Your task to perform on an android device: Add dell xps to the cart on walmart.com, then select checkout. Image 0: 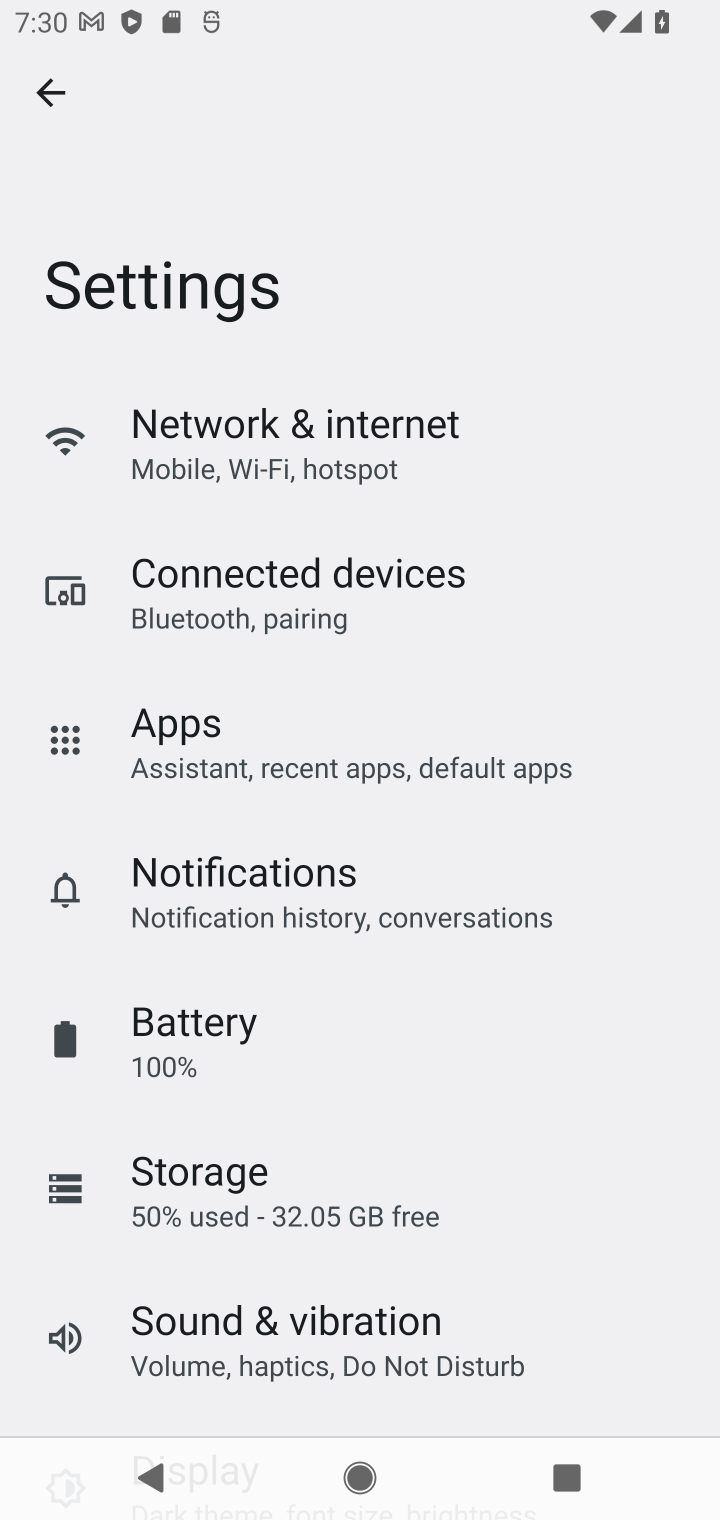
Step 0: press home button
Your task to perform on an android device: Add dell xps to the cart on walmart.com, then select checkout. Image 1: 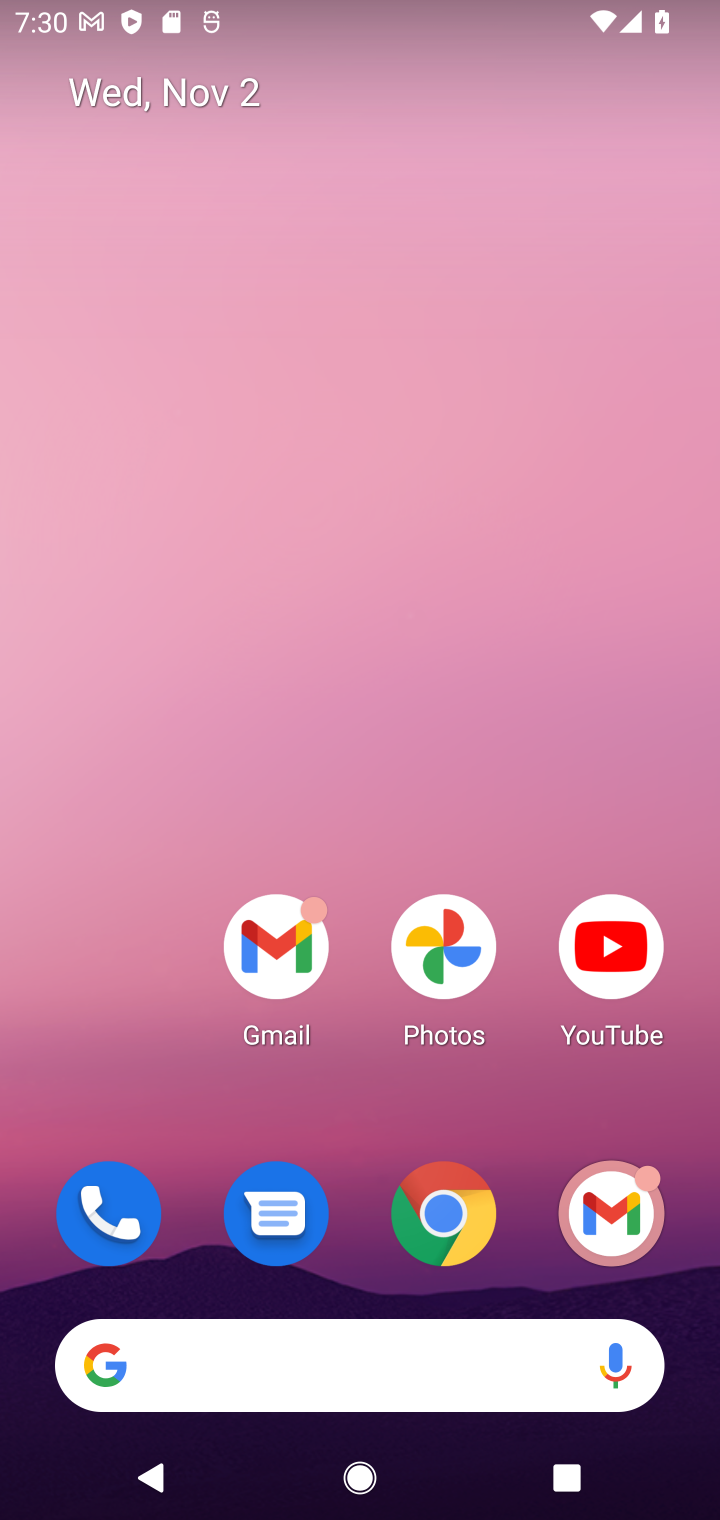
Step 1: click (440, 1215)
Your task to perform on an android device: Add dell xps to the cart on walmart.com, then select checkout. Image 2: 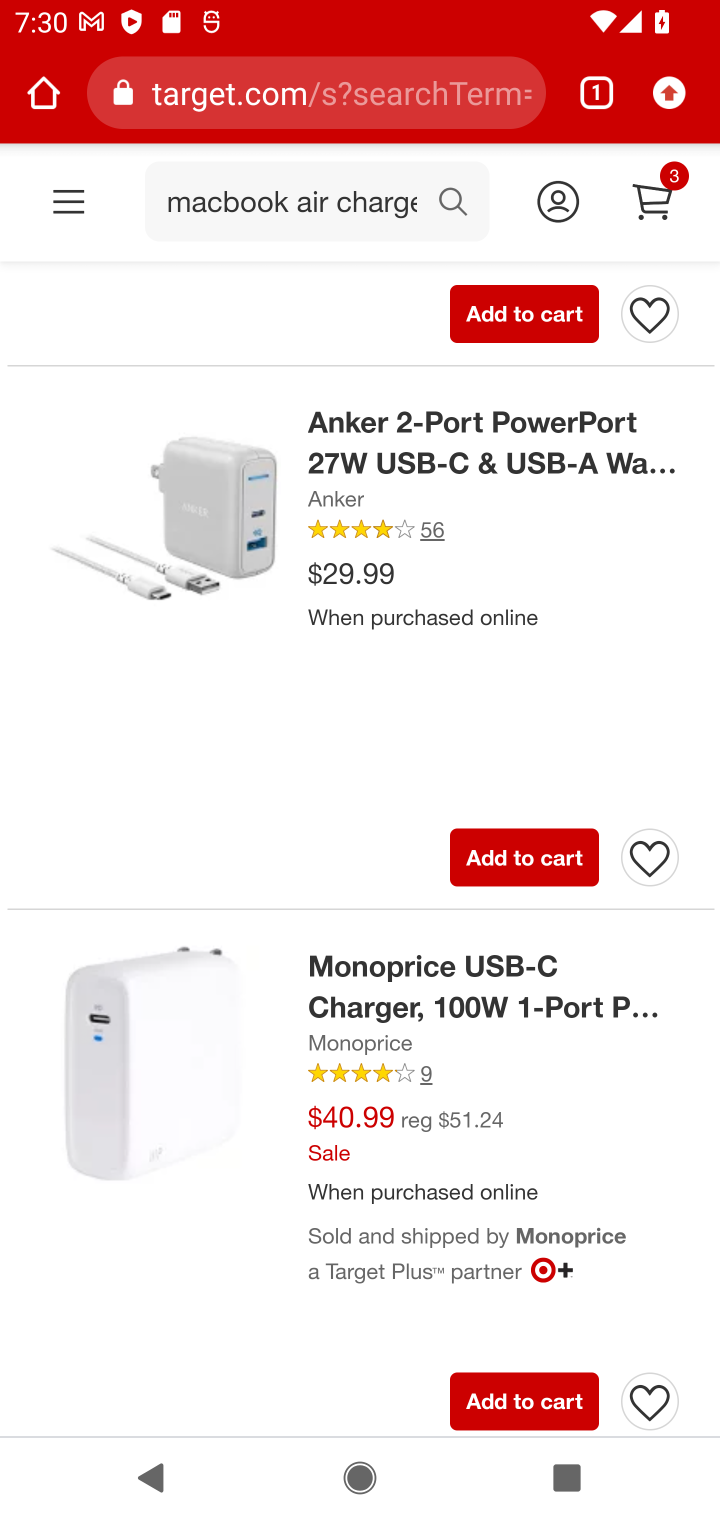
Step 2: click (416, 65)
Your task to perform on an android device: Add dell xps to the cart on walmart.com, then select checkout. Image 3: 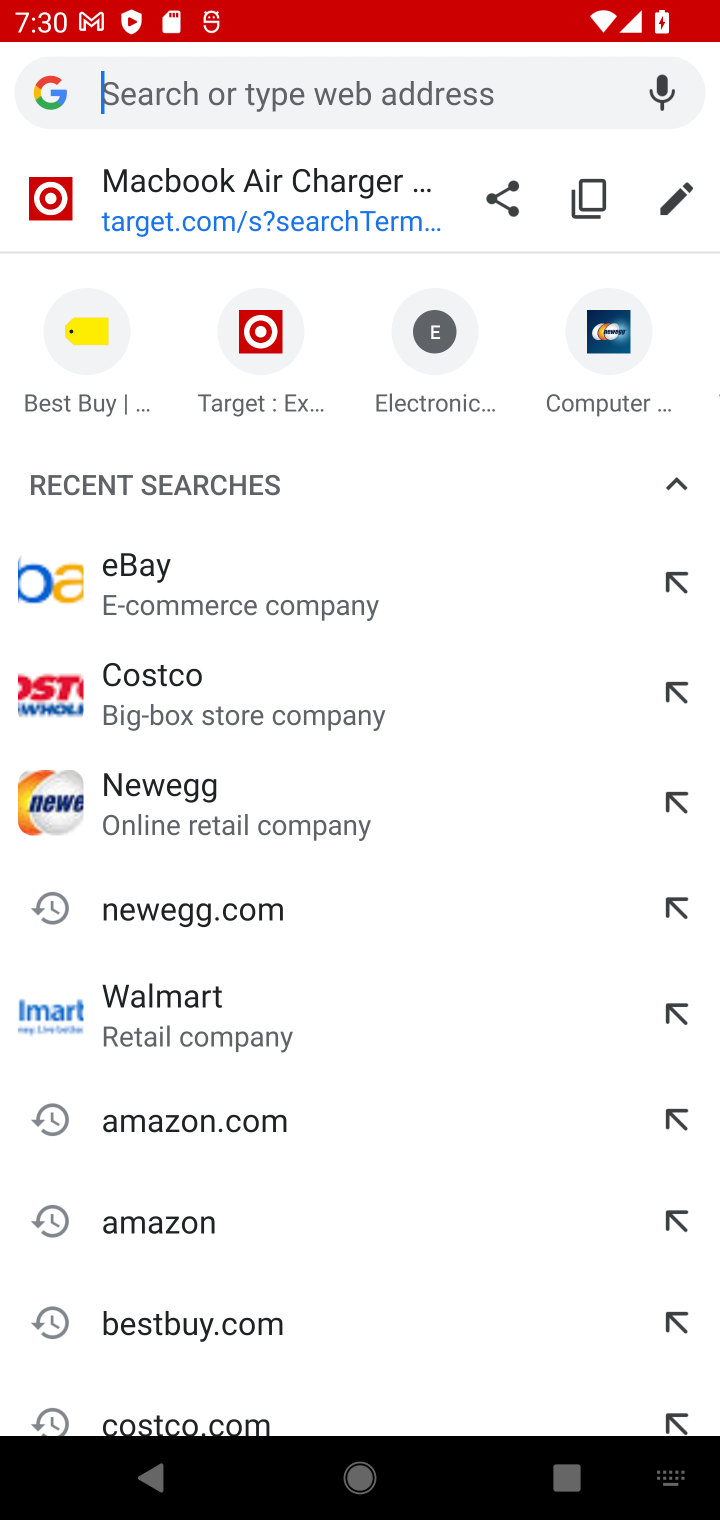
Step 3: click (170, 1009)
Your task to perform on an android device: Add dell xps to the cart on walmart.com, then select checkout. Image 4: 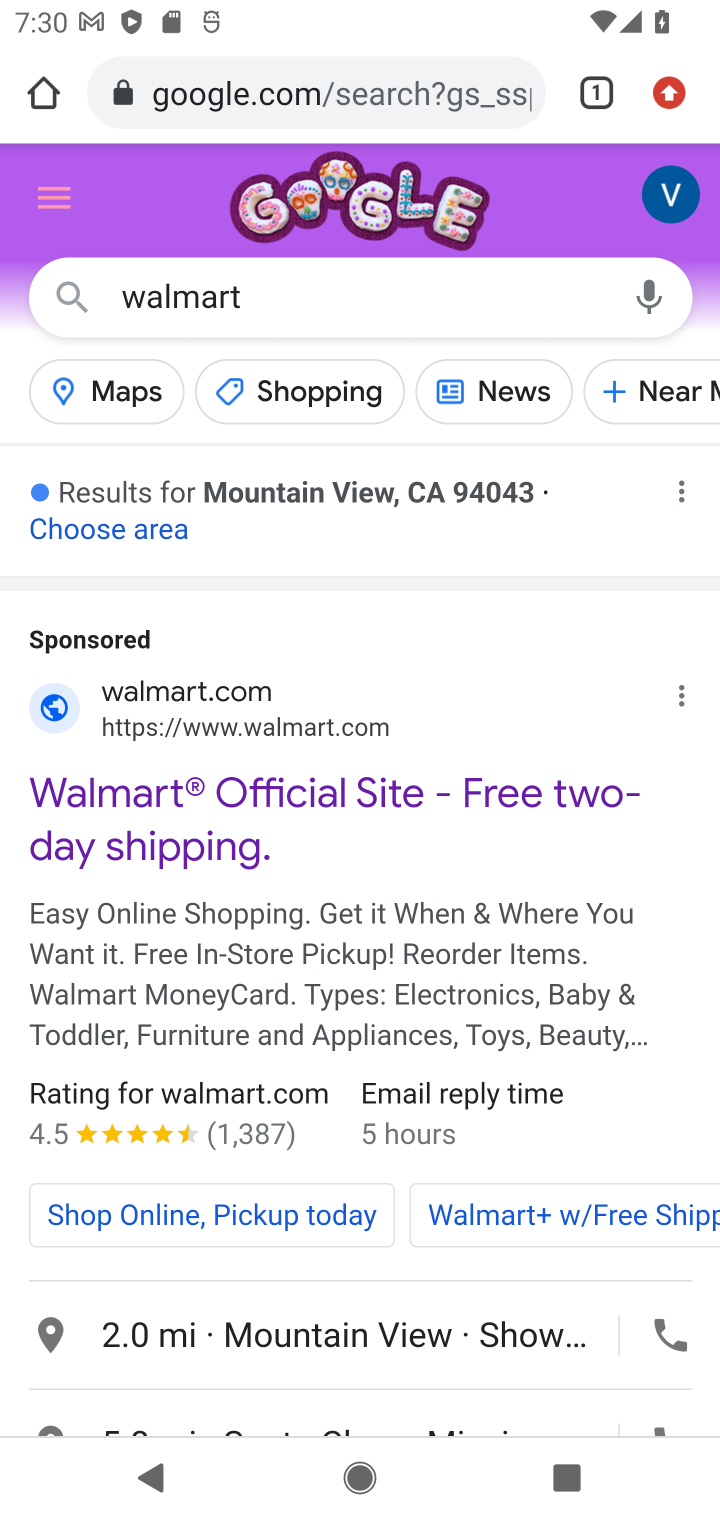
Step 4: click (108, 787)
Your task to perform on an android device: Add dell xps to the cart on walmart.com, then select checkout. Image 5: 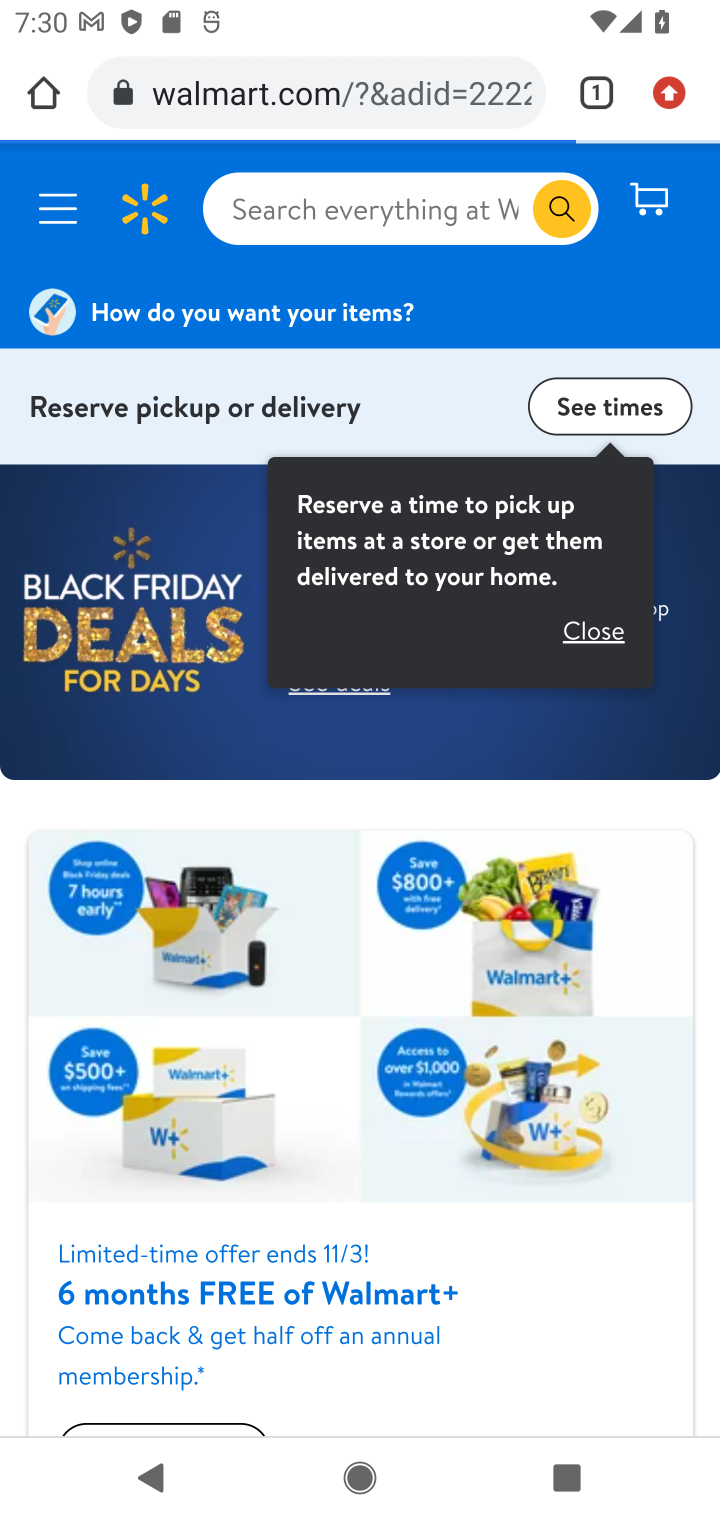
Step 5: click (293, 189)
Your task to perform on an android device: Add dell xps to the cart on walmart.com, then select checkout. Image 6: 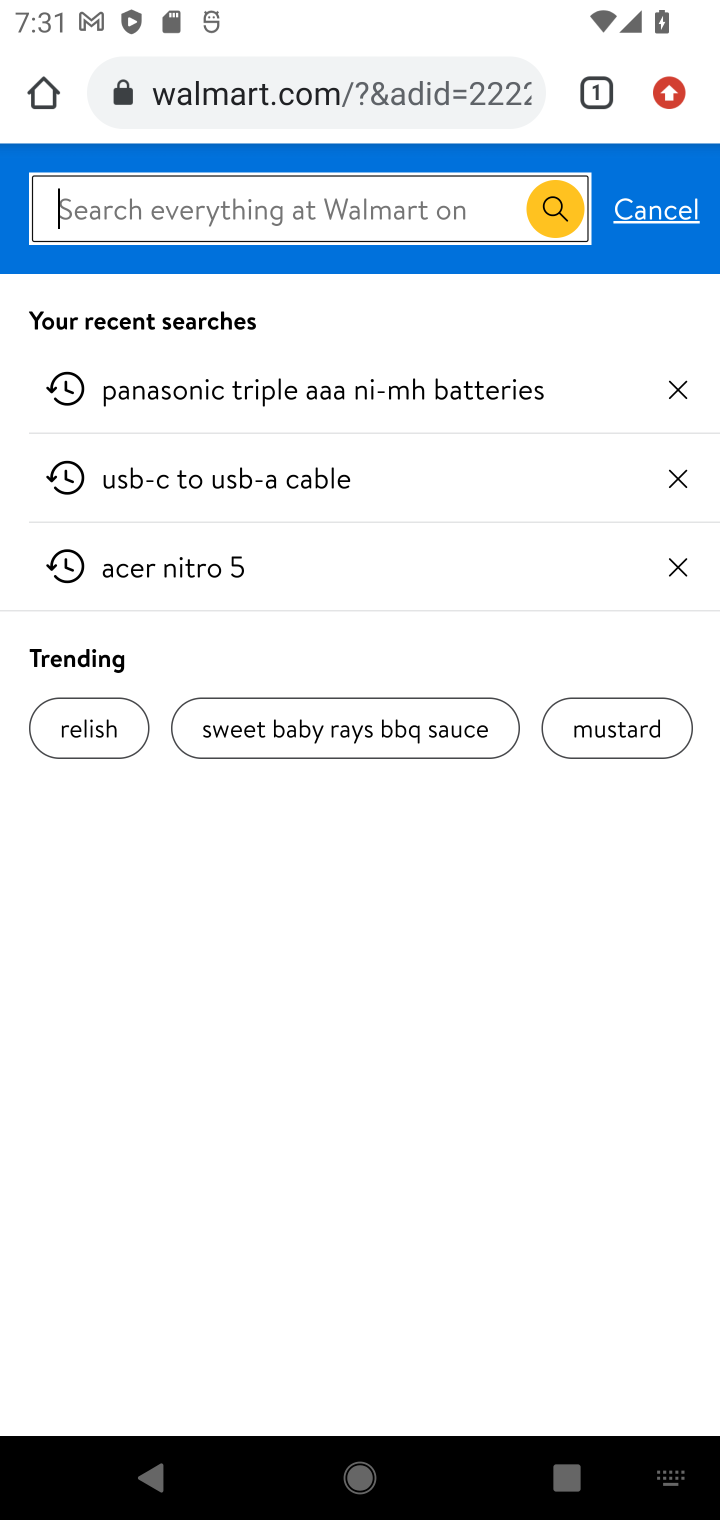
Step 6: type "dell xps"
Your task to perform on an android device: Add dell xps to the cart on walmart.com, then select checkout. Image 7: 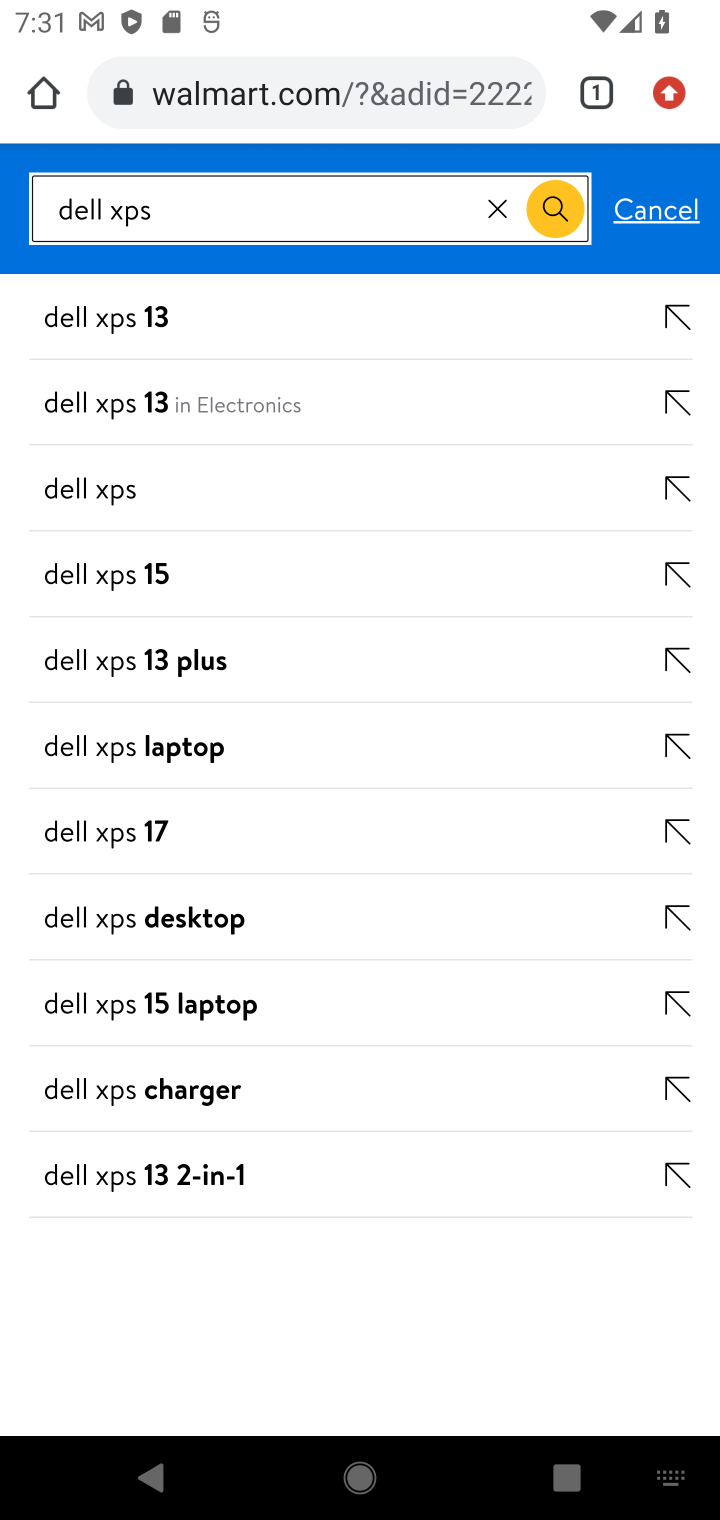
Step 7: click (112, 319)
Your task to perform on an android device: Add dell xps to the cart on walmart.com, then select checkout. Image 8: 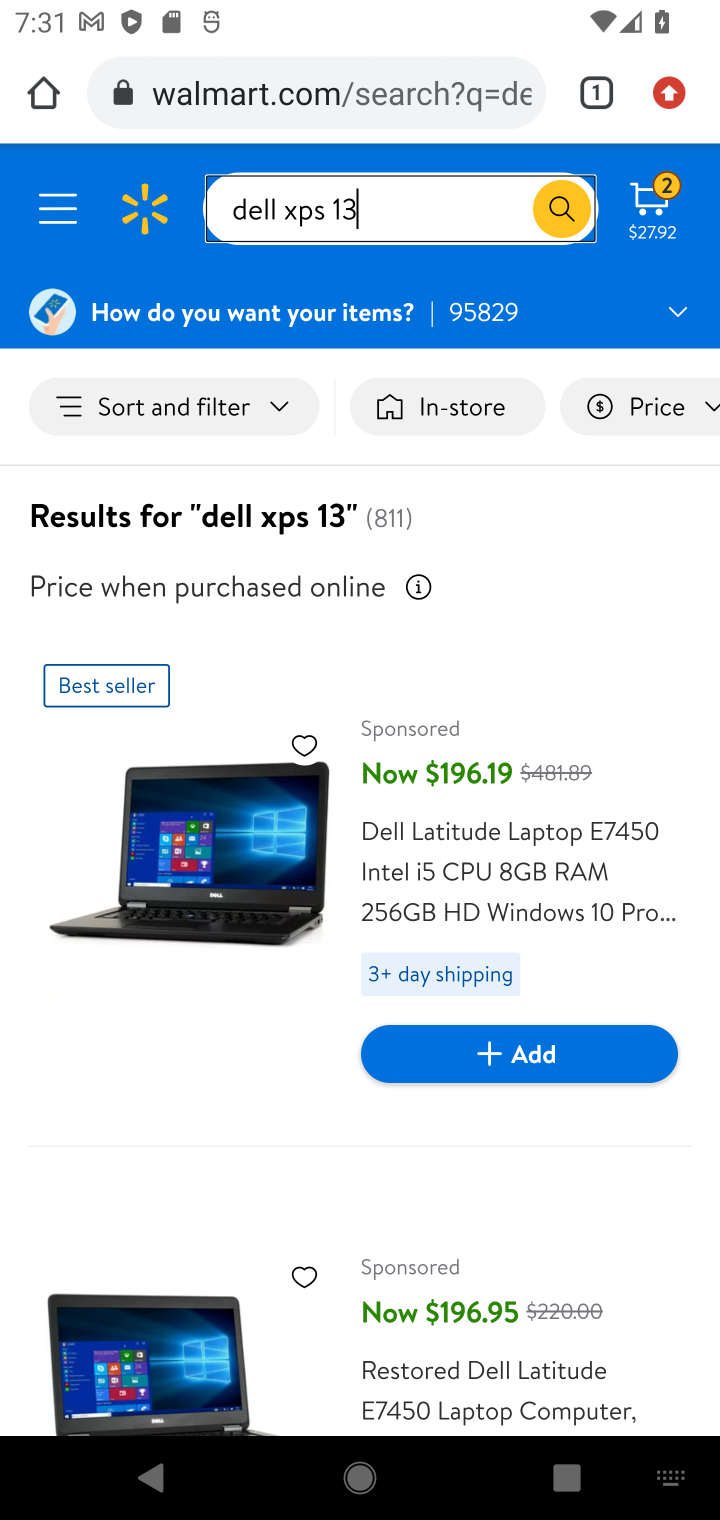
Step 8: drag from (415, 1246) to (441, 572)
Your task to perform on an android device: Add dell xps to the cart on walmart.com, then select checkout. Image 9: 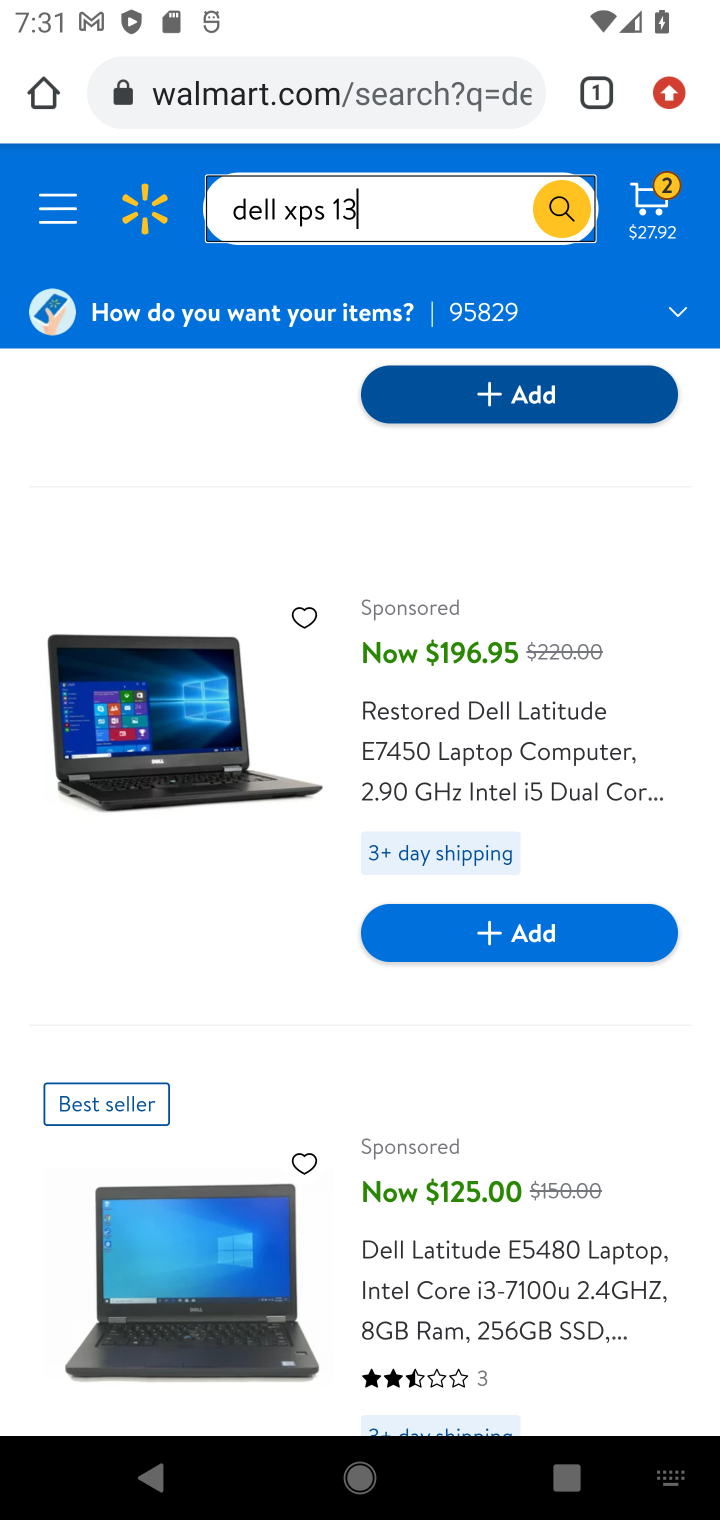
Step 9: drag from (436, 1243) to (460, 698)
Your task to perform on an android device: Add dell xps to the cart on walmart.com, then select checkout. Image 10: 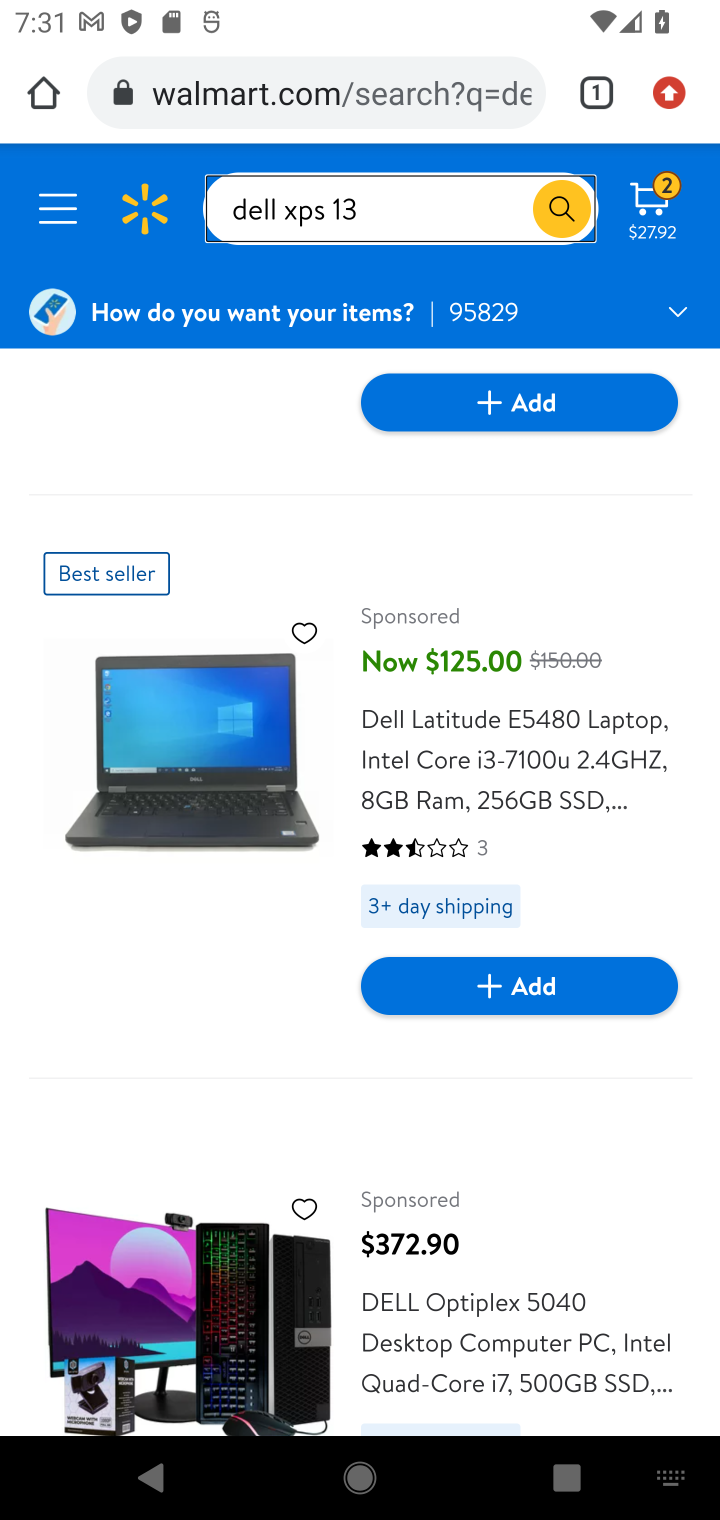
Step 10: drag from (485, 1243) to (494, 696)
Your task to perform on an android device: Add dell xps to the cart on walmart.com, then select checkout. Image 11: 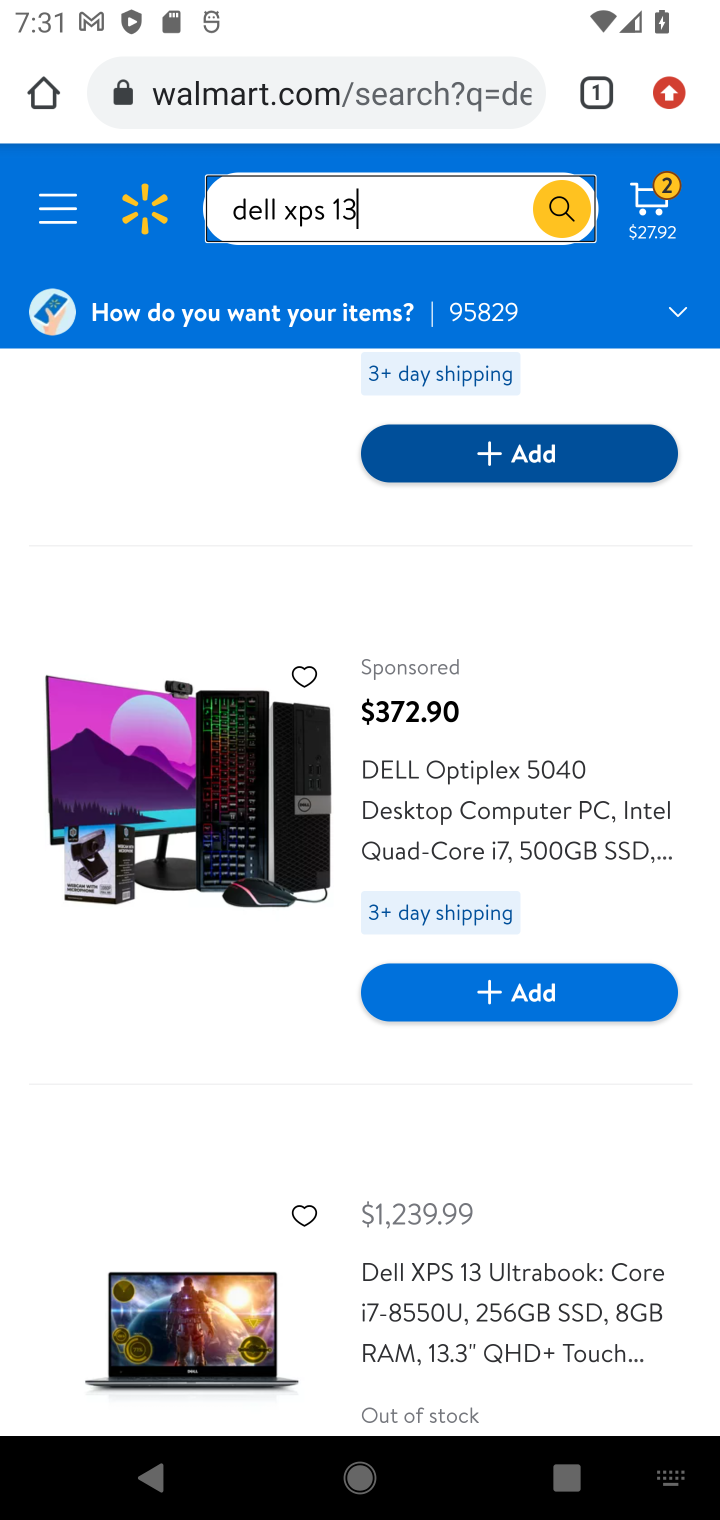
Step 11: drag from (440, 1254) to (438, 660)
Your task to perform on an android device: Add dell xps to the cart on walmart.com, then select checkout. Image 12: 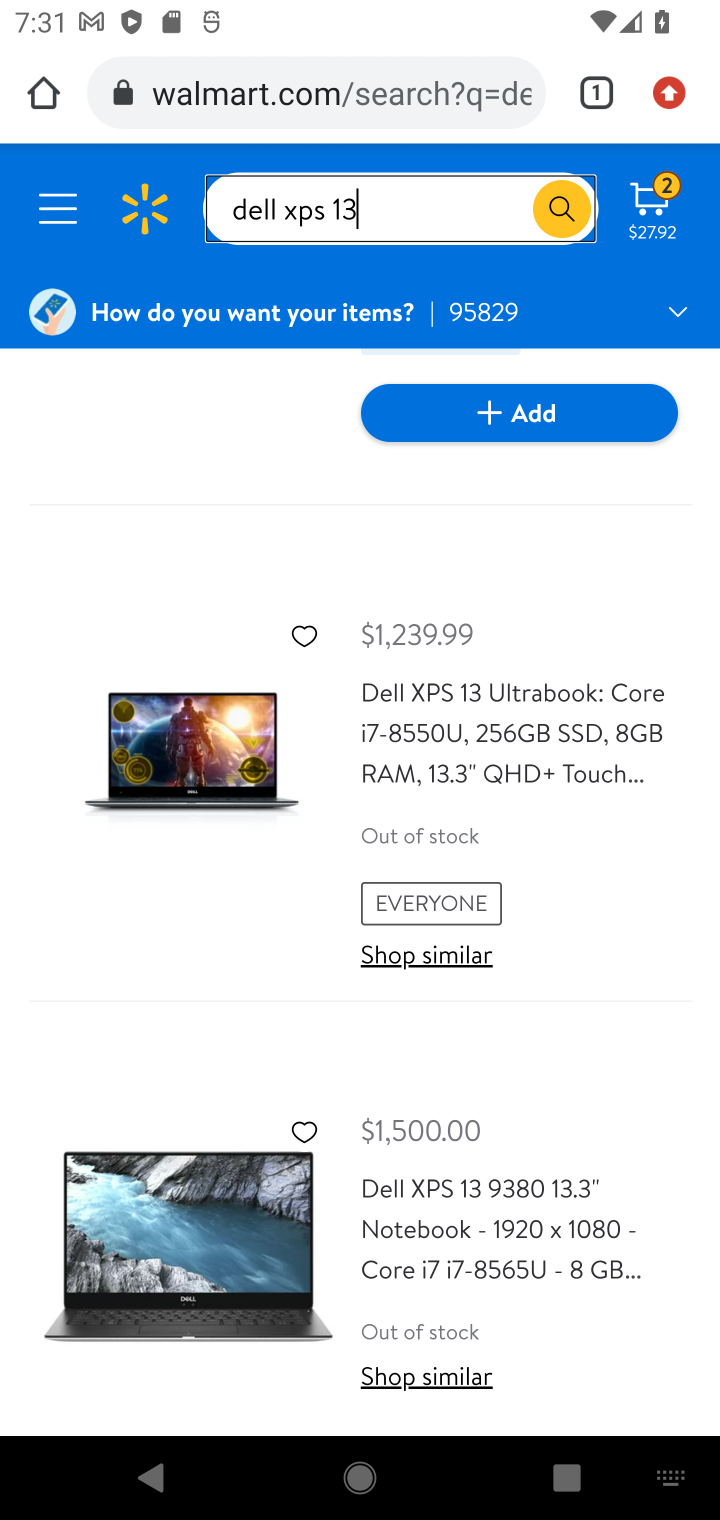
Step 12: drag from (567, 1108) to (449, 497)
Your task to perform on an android device: Add dell xps to the cart on walmart.com, then select checkout. Image 13: 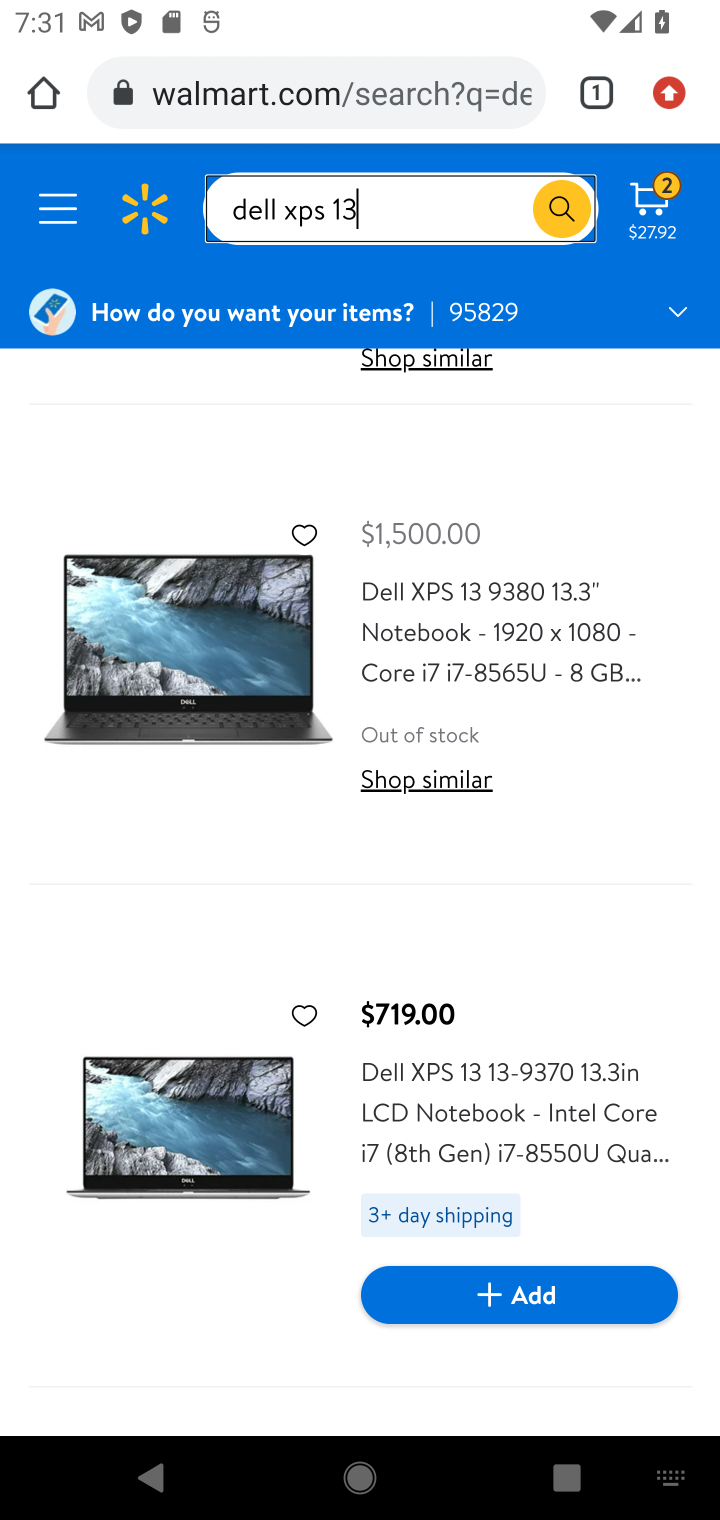
Step 13: drag from (457, 1116) to (567, 722)
Your task to perform on an android device: Add dell xps to the cart on walmart.com, then select checkout. Image 14: 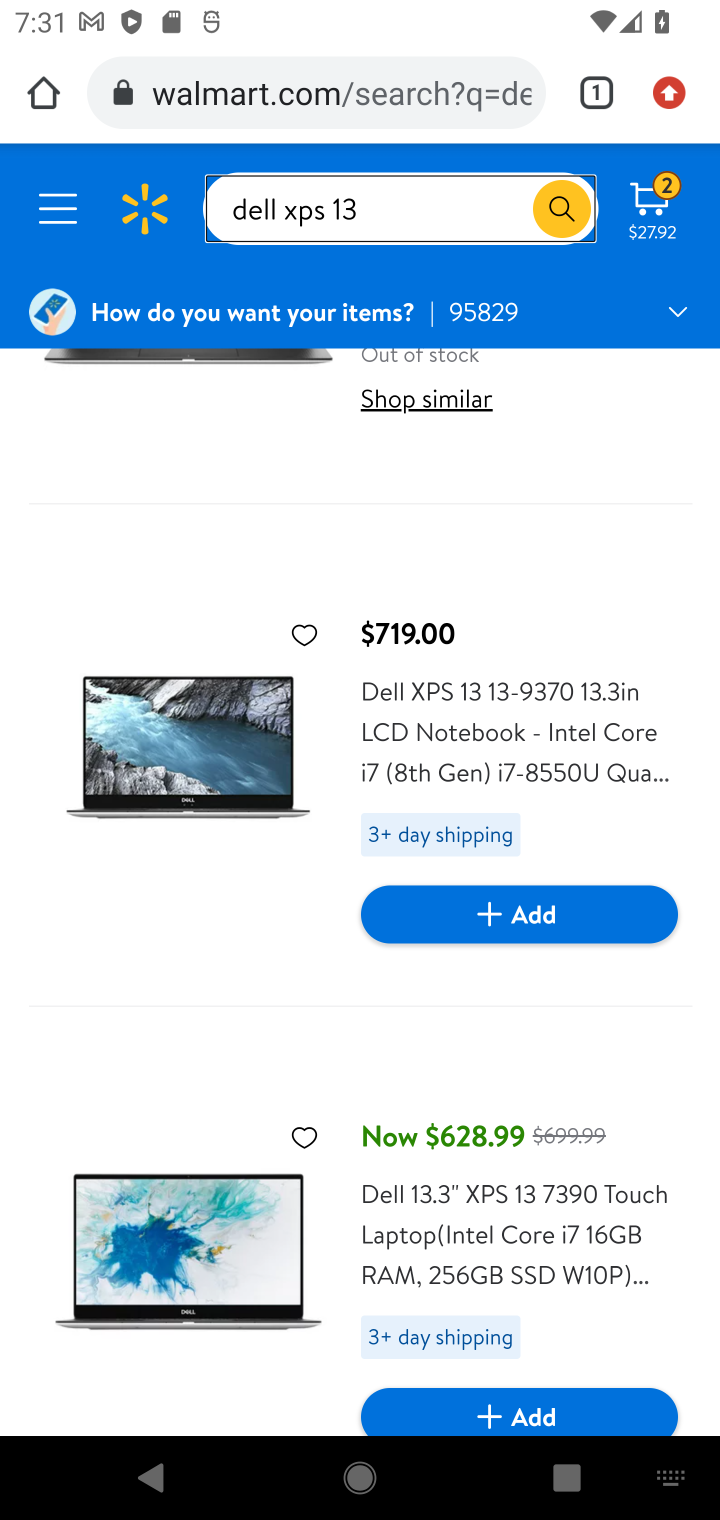
Step 14: click (483, 914)
Your task to perform on an android device: Add dell xps to the cart on walmart.com, then select checkout. Image 15: 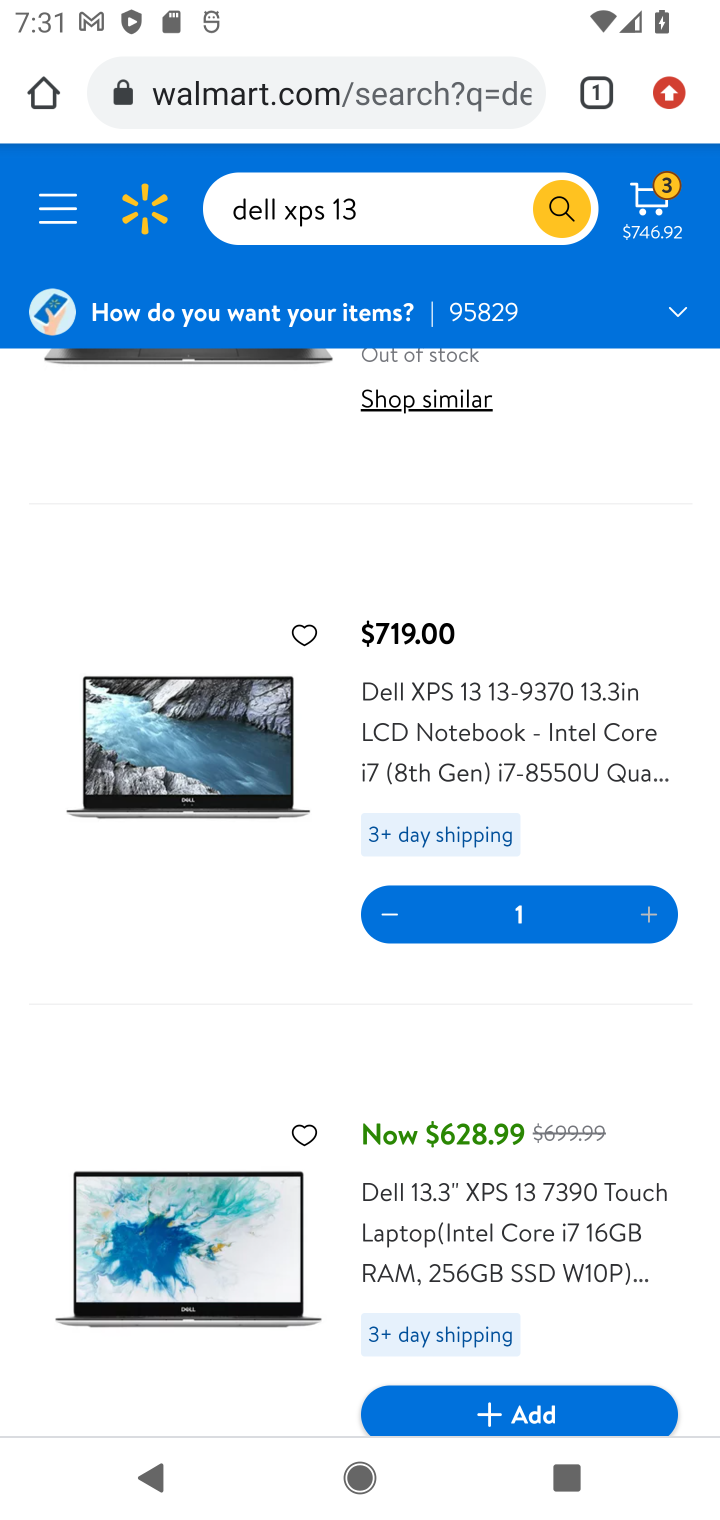
Step 15: click (650, 196)
Your task to perform on an android device: Add dell xps to the cart on walmart.com, then select checkout. Image 16: 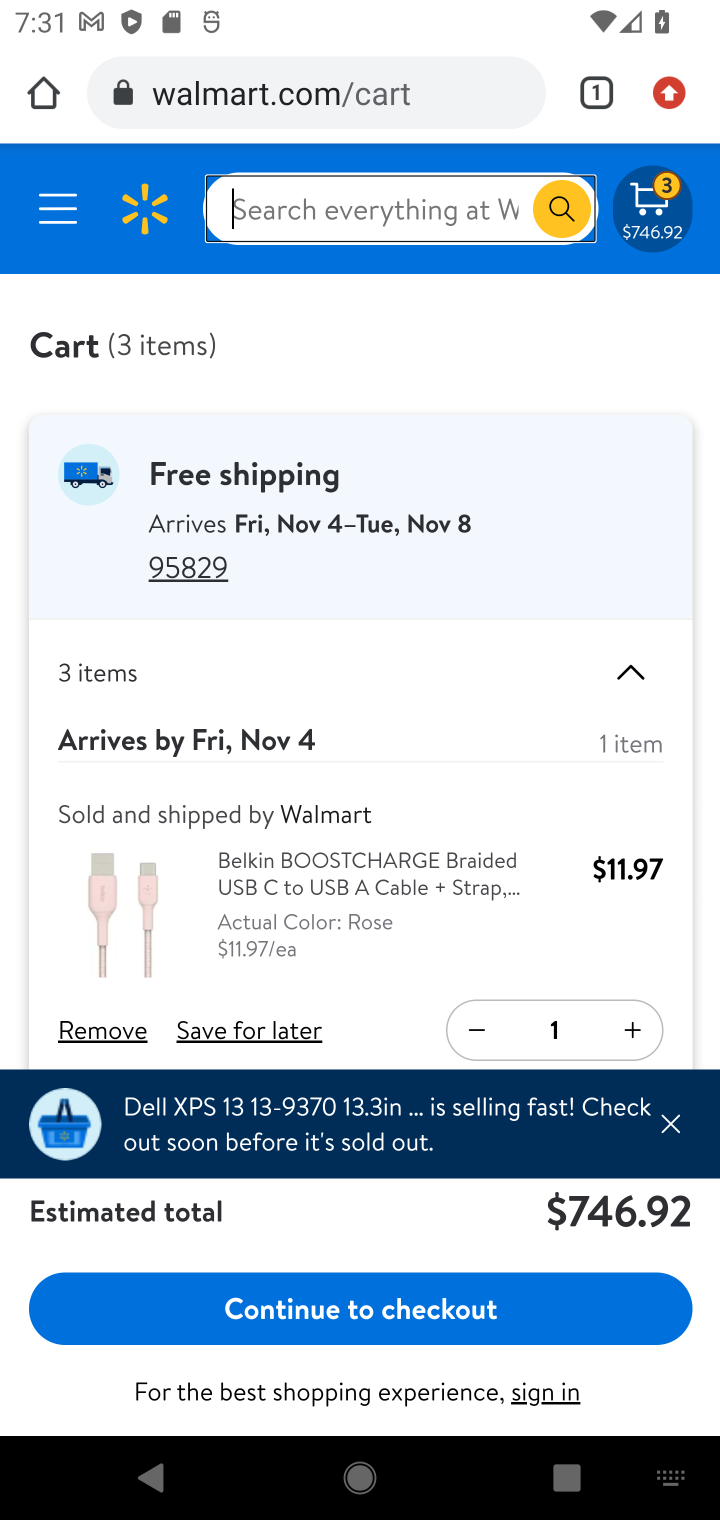
Step 16: click (350, 1309)
Your task to perform on an android device: Add dell xps to the cart on walmart.com, then select checkout. Image 17: 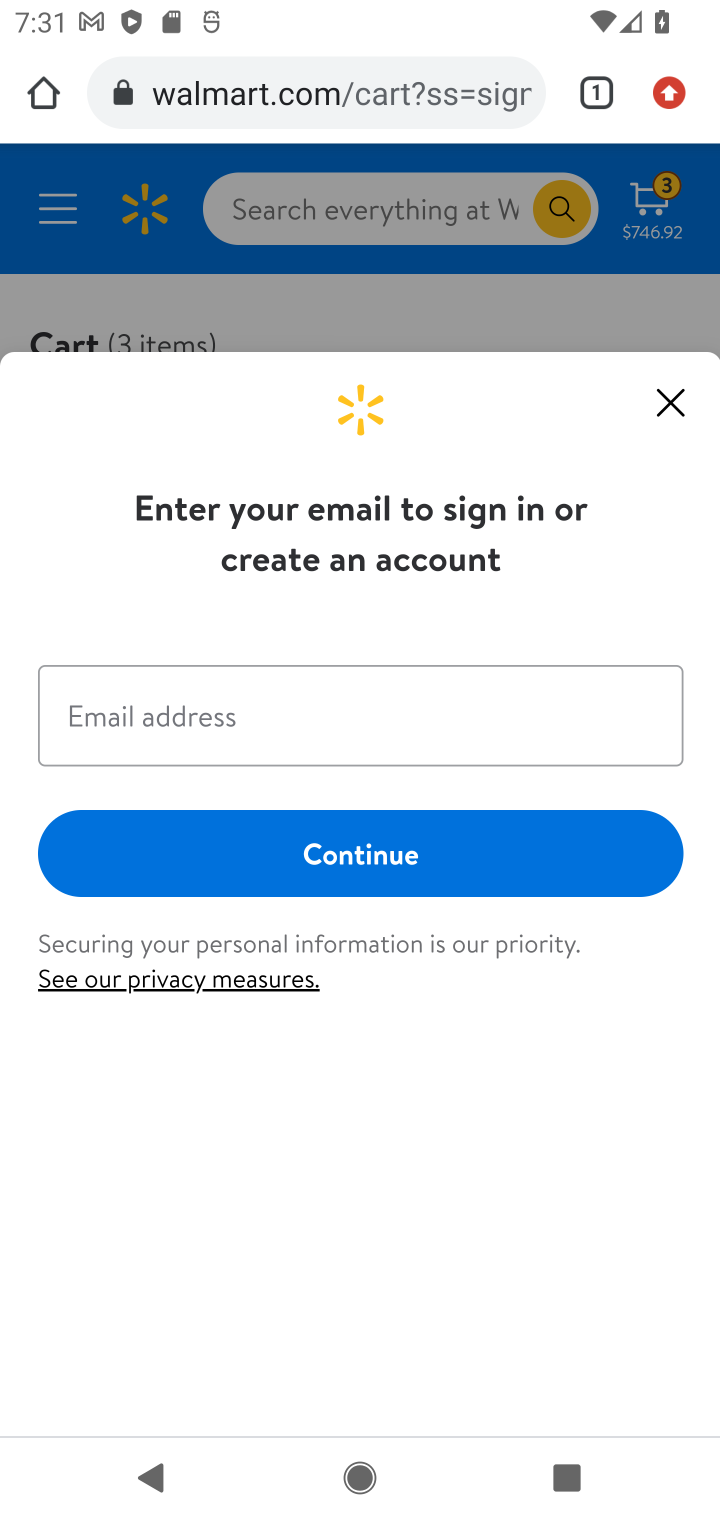
Step 17: task complete